Your task to perform on an android device: Find coffee shops on Maps Image 0: 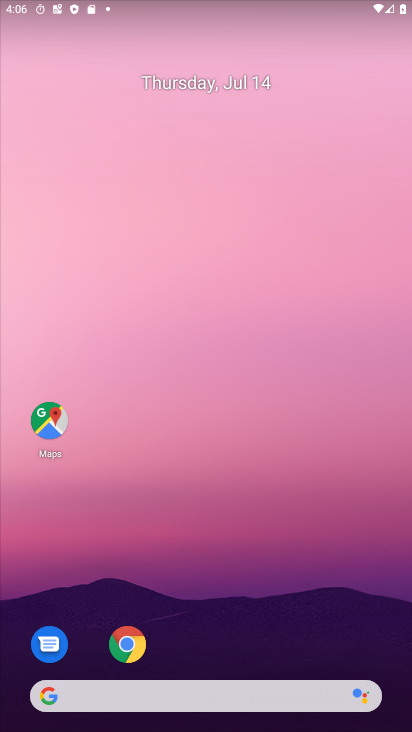
Step 0: click (42, 408)
Your task to perform on an android device: Find coffee shops on Maps Image 1: 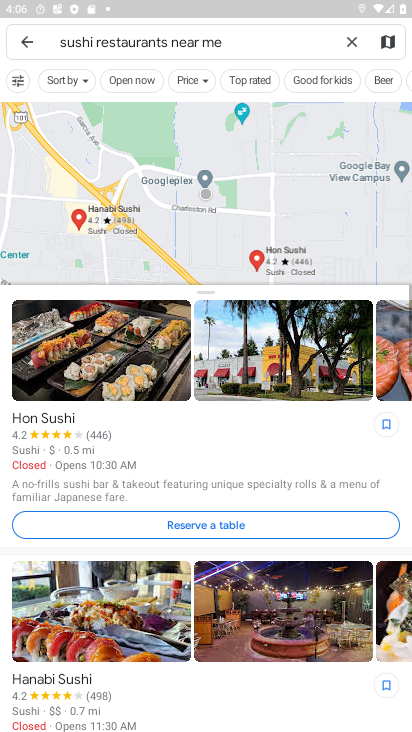
Step 1: click (347, 44)
Your task to perform on an android device: Find coffee shops on Maps Image 2: 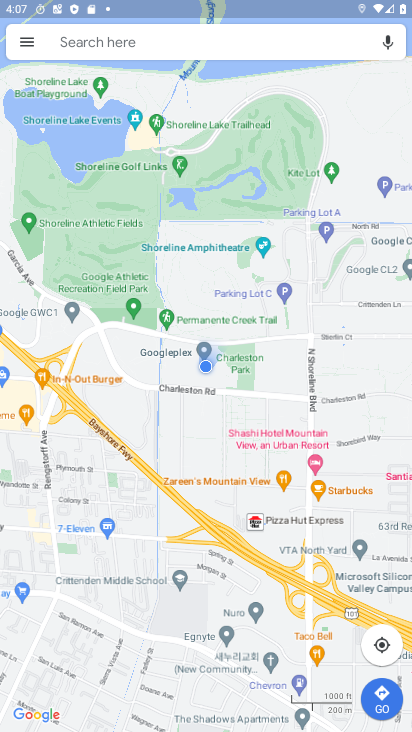
Step 2: click (124, 54)
Your task to perform on an android device: Find coffee shops on Maps Image 3: 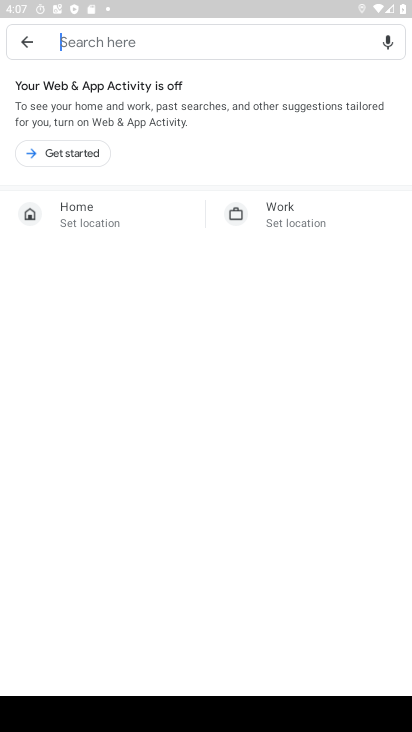
Step 3: type "coffee shops"
Your task to perform on an android device: Find coffee shops on Maps Image 4: 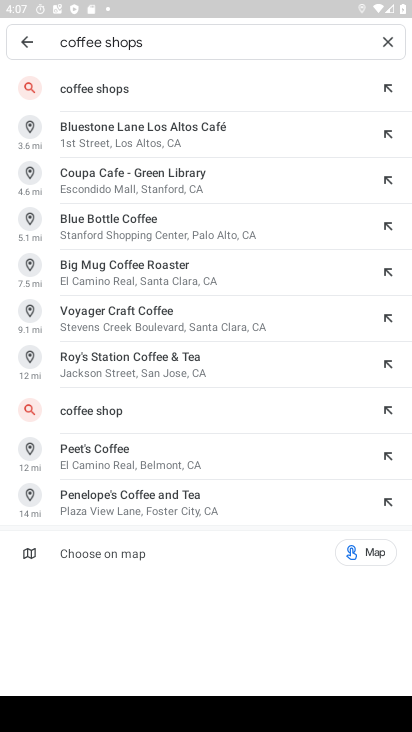
Step 4: click (135, 91)
Your task to perform on an android device: Find coffee shops on Maps Image 5: 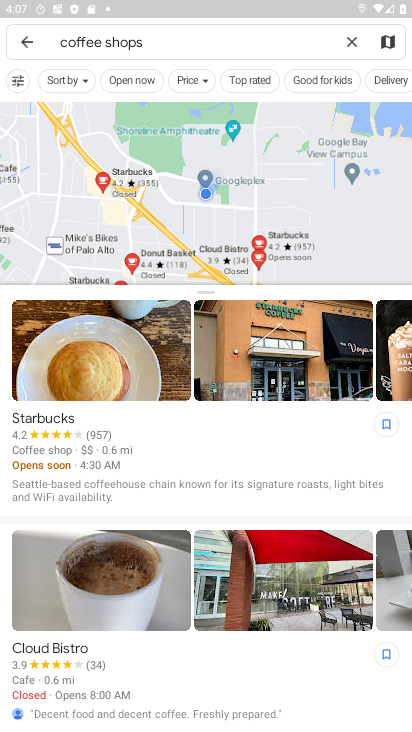
Step 5: task complete